Your task to perform on an android device: Open the phone app and click the voicemail tab. Image 0: 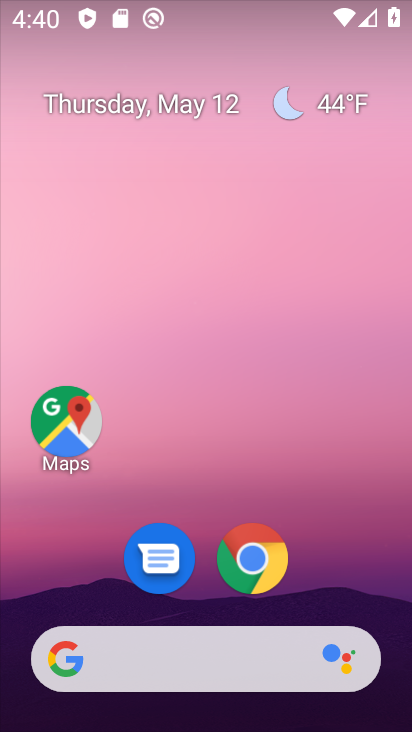
Step 0: drag from (334, 521) to (272, 20)
Your task to perform on an android device: Open the phone app and click the voicemail tab. Image 1: 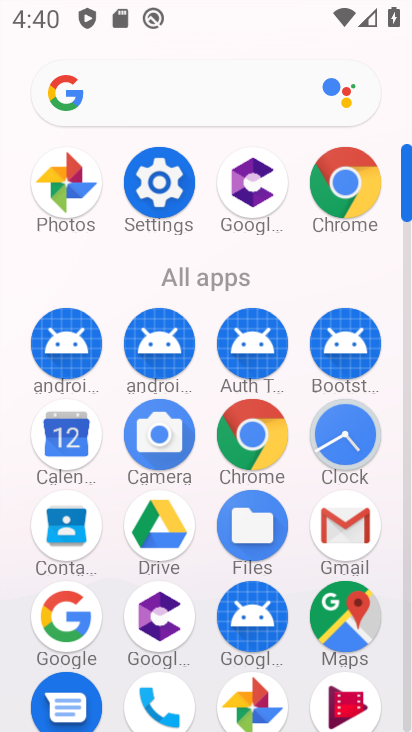
Step 1: drag from (15, 581) to (13, 275)
Your task to perform on an android device: Open the phone app and click the voicemail tab. Image 2: 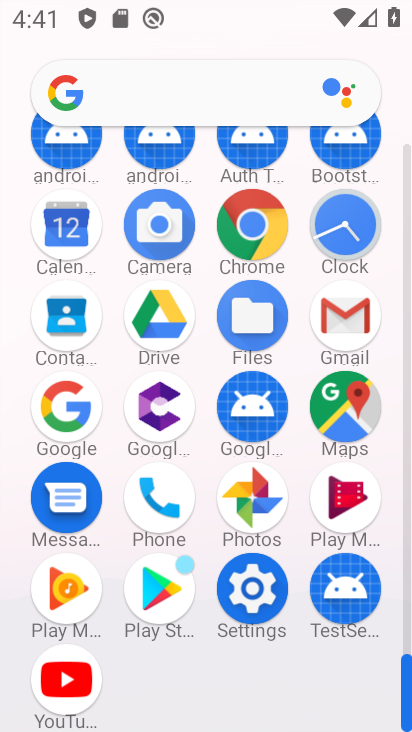
Step 2: drag from (23, 246) to (28, 482)
Your task to perform on an android device: Open the phone app and click the voicemail tab. Image 3: 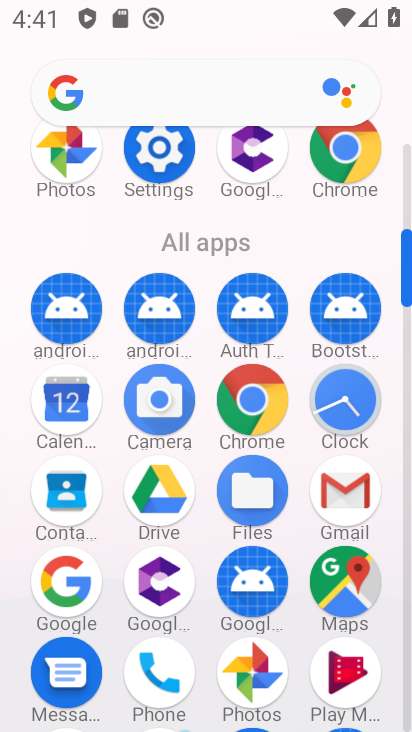
Step 3: drag from (9, 503) to (15, 298)
Your task to perform on an android device: Open the phone app and click the voicemail tab. Image 4: 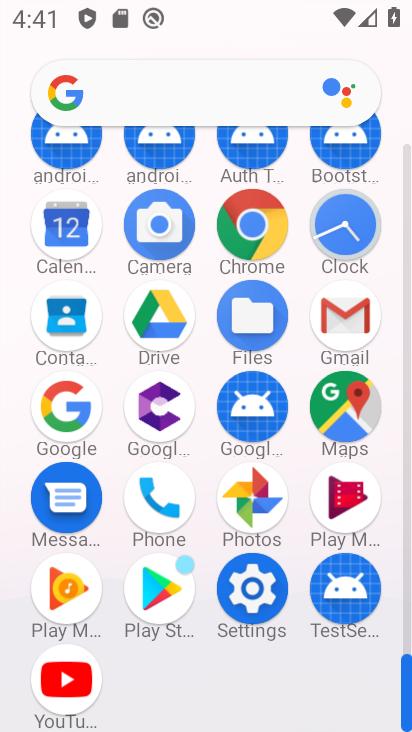
Step 4: click (160, 502)
Your task to perform on an android device: Open the phone app and click the voicemail tab. Image 5: 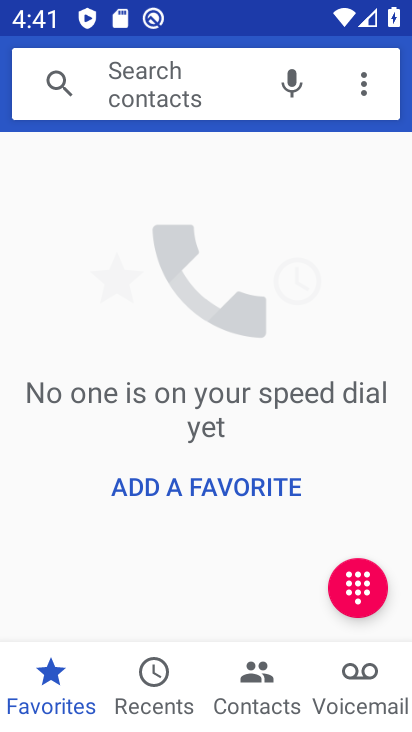
Step 5: click (357, 672)
Your task to perform on an android device: Open the phone app and click the voicemail tab. Image 6: 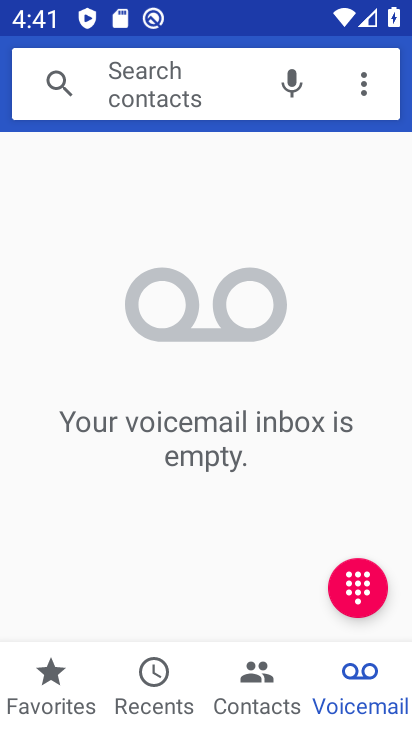
Step 6: task complete